Your task to perform on an android device: Open location settings Image 0: 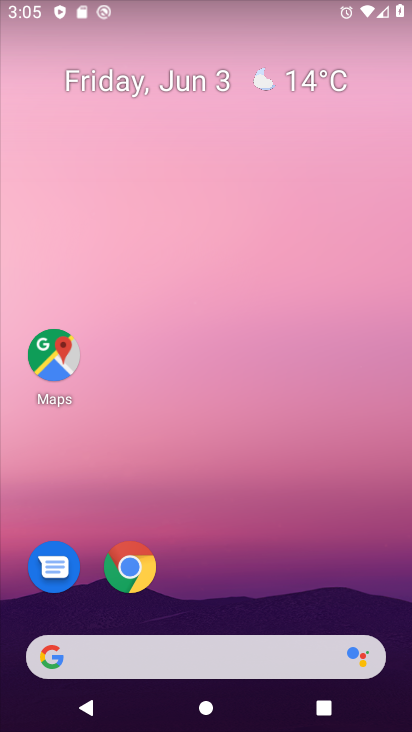
Step 0: drag from (277, 678) to (276, 237)
Your task to perform on an android device: Open location settings Image 1: 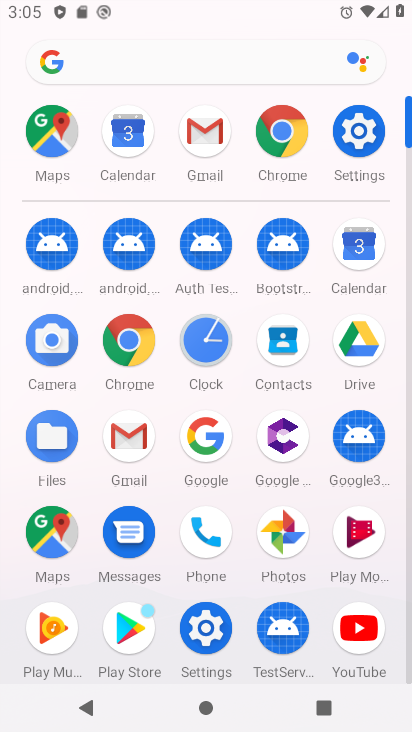
Step 1: click (213, 618)
Your task to perform on an android device: Open location settings Image 2: 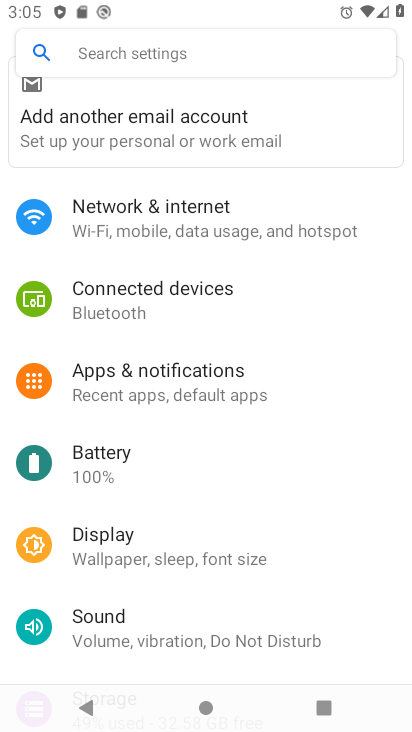
Step 2: click (148, 54)
Your task to perform on an android device: Open location settings Image 3: 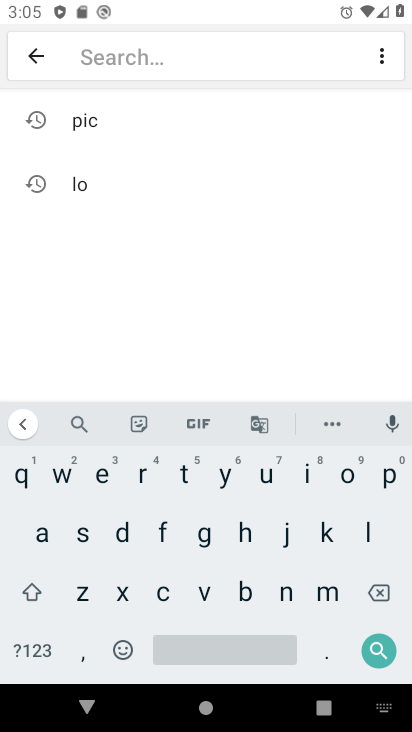
Step 3: click (100, 179)
Your task to perform on an android device: Open location settings Image 4: 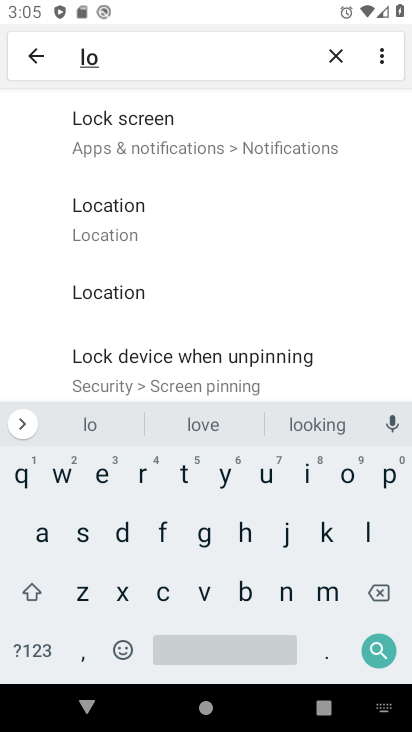
Step 4: click (119, 205)
Your task to perform on an android device: Open location settings Image 5: 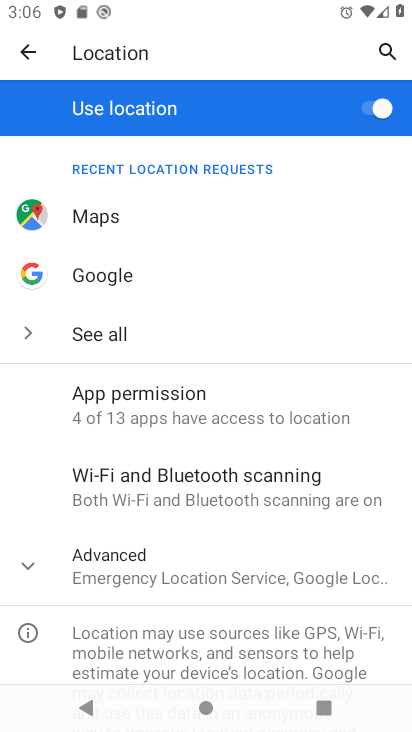
Step 5: task complete